Your task to perform on an android device: open app "Expedia: Hotels, Flights & Car" (install if not already installed), go to login, and select forgot password Image 0: 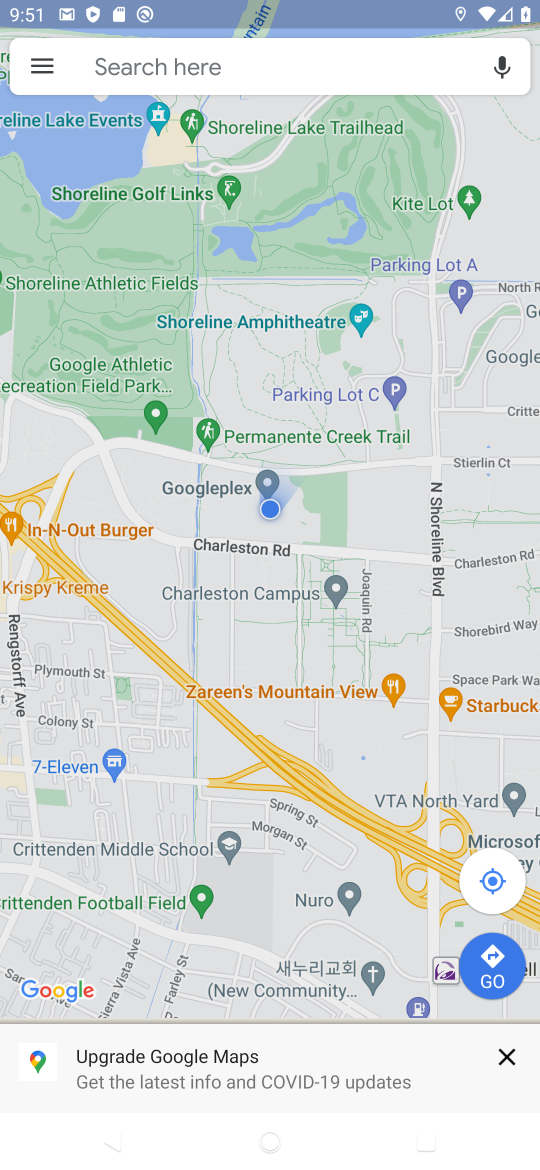
Step 0: press home button
Your task to perform on an android device: open app "Expedia: Hotels, Flights & Car" (install if not already installed), go to login, and select forgot password Image 1: 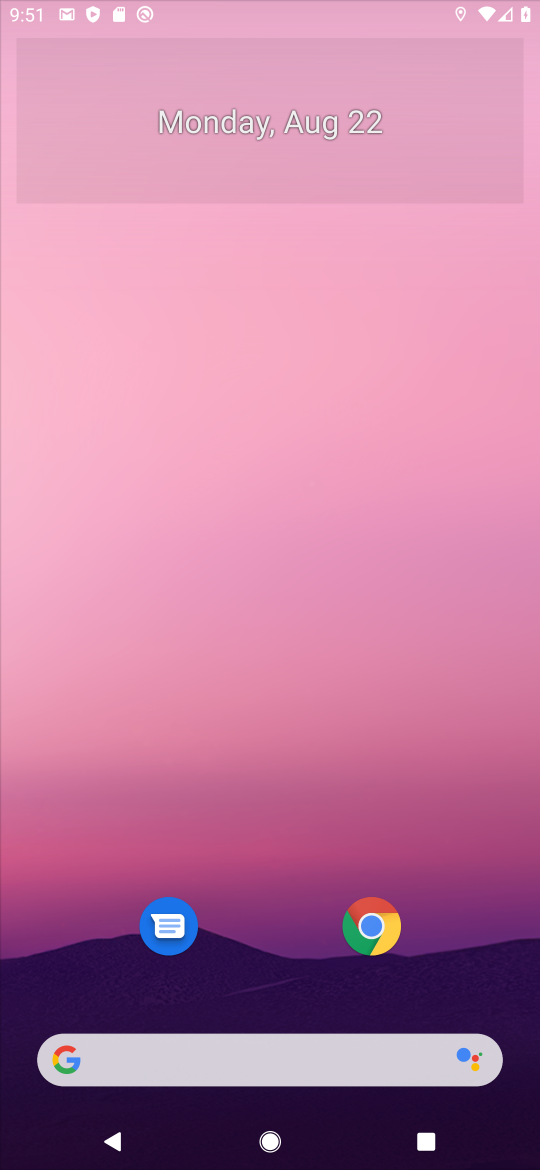
Step 1: drag from (303, 1016) to (381, 28)
Your task to perform on an android device: open app "Expedia: Hotels, Flights & Car" (install if not already installed), go to login, and select forgot password Image 2: 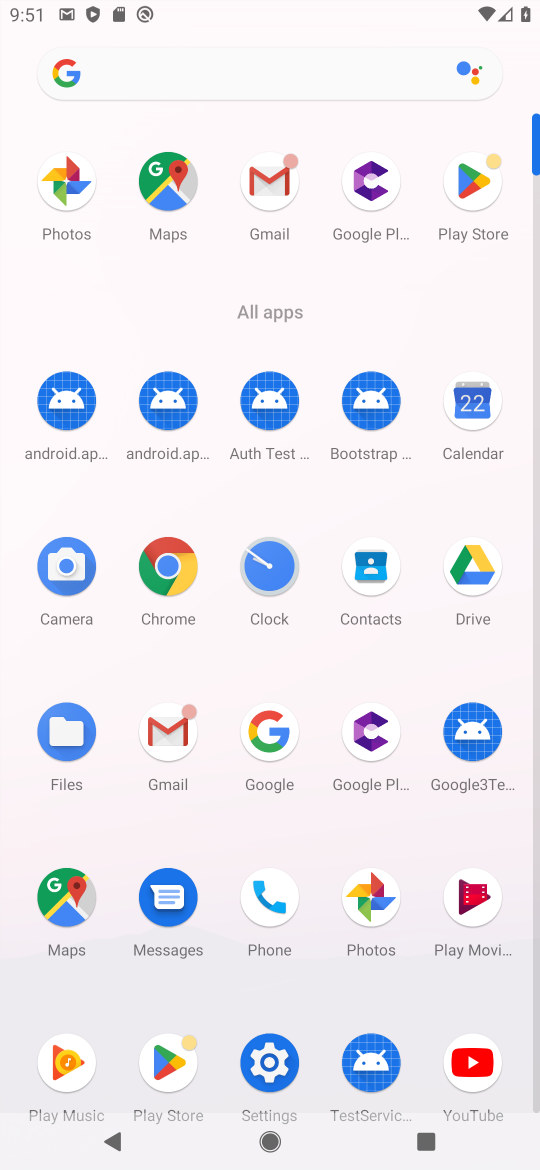
Step 2: click (465, 181)
Your task to perform on an android device: open app "Expedia: Hotels, Flights & Car" (install if not already installed), go to login, and select forgot password Image 3: 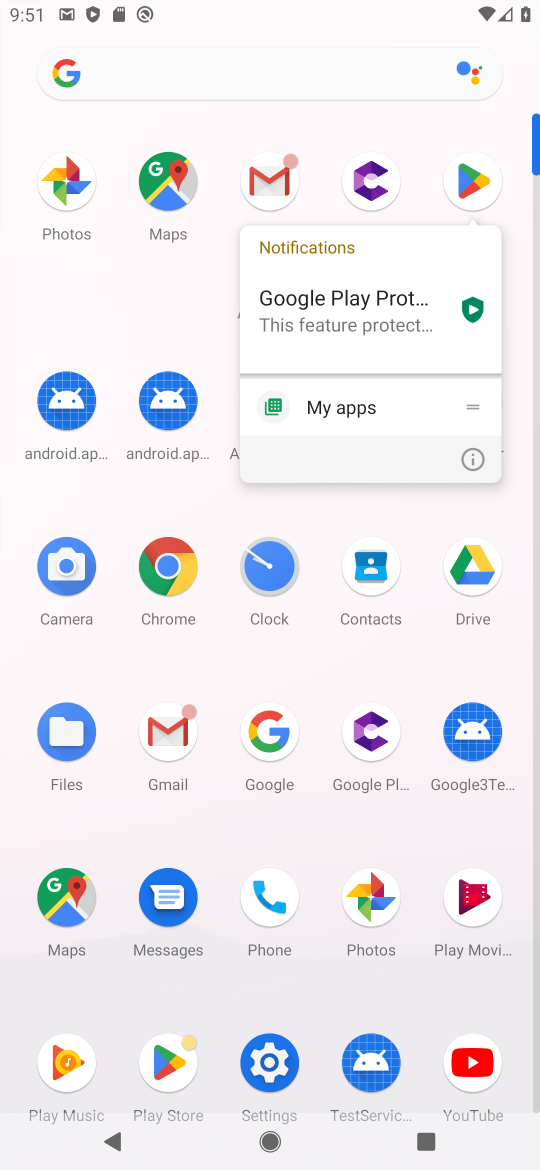
Step 3: click (465, 179)
Your task to perform on an android device: open app "Expedia: Hotels, Flights & Car" (install if not already installed), go to login, and select forgot password Image 4: 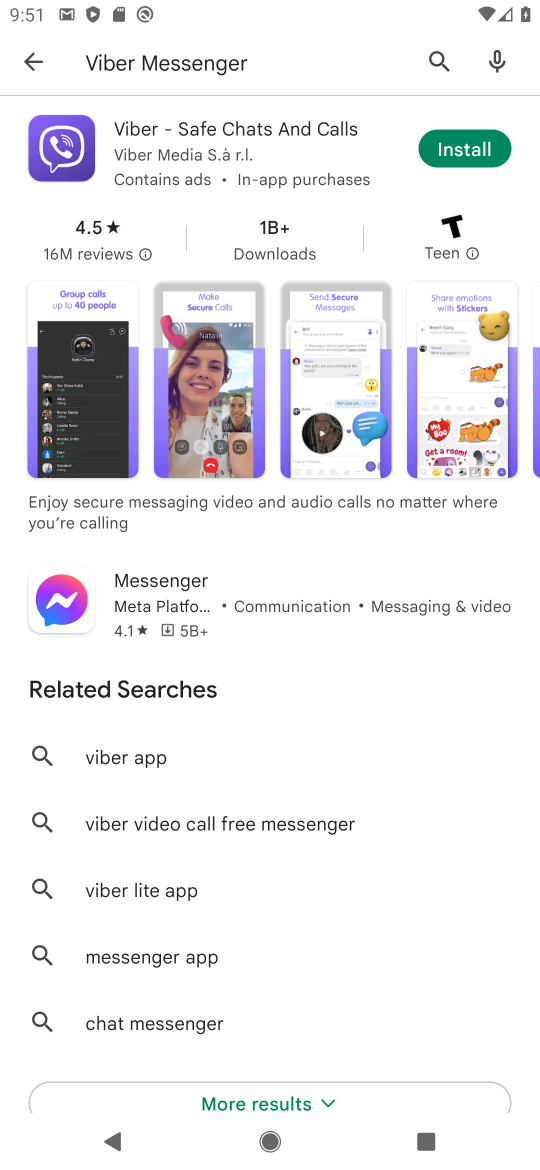
Step 4: press back button
Your task to perform on an android device: open app "Expedia: Hotels, Flights & Car" (install if not already installed), go to login, and select forgot password Image 5: 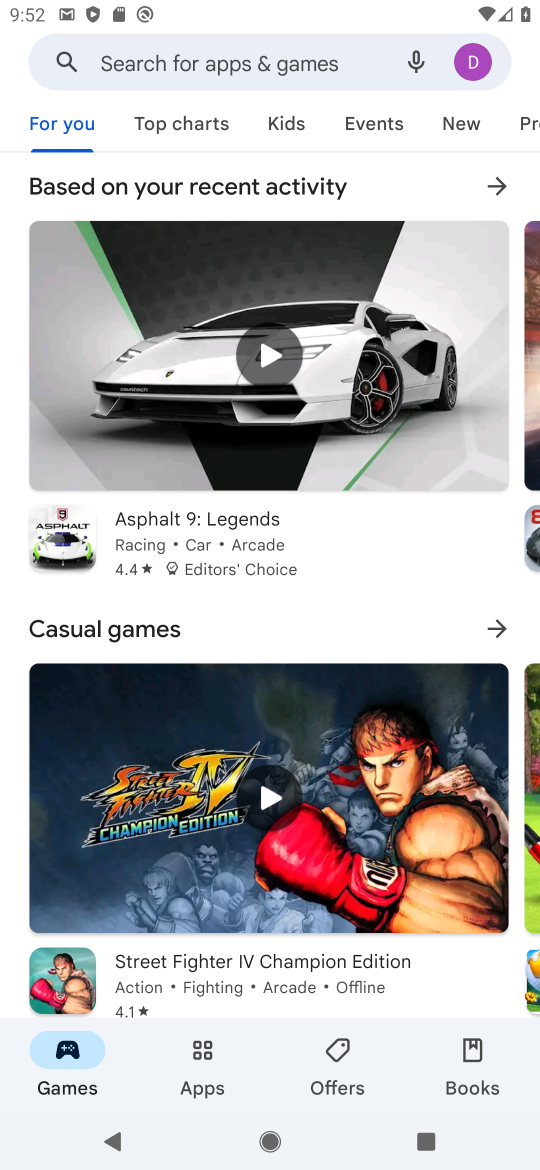
Step 5: click (192, 82)
Your task to perform on an android device: open app "Expedia: Hotels, Flights & Car" (install if not already installed), go to login, and select forgot password Image 6: 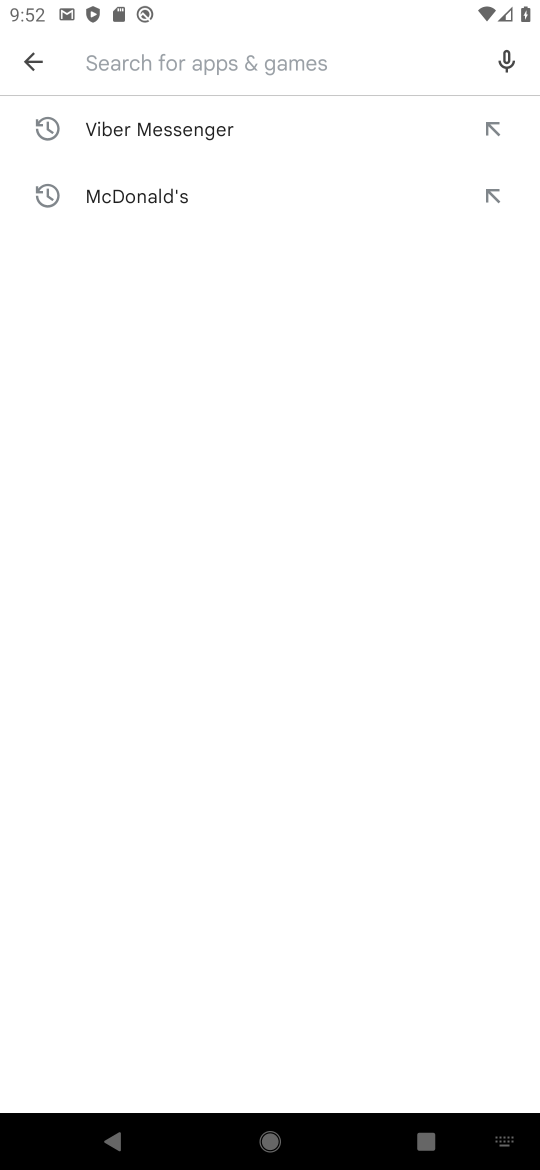
Step 6: type "Expedia: Hotels, Flights & Car"
Your task to perform on an android device: open app "Expedia: Hotels, Flights & Car" (install if not already installed), go to login, and select forgot password Image 7: 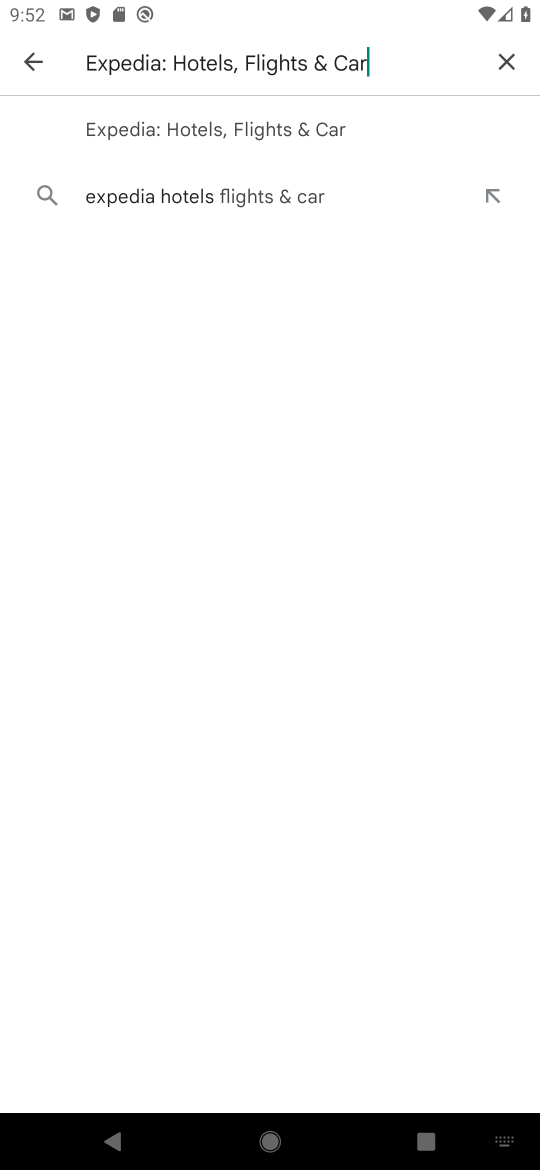
Step 7: press enter
Your task to perform on an android device: open app "Expedia: Hotels, Flights & Car" (install if not already installed), go to login, and select forgot password Image 8: 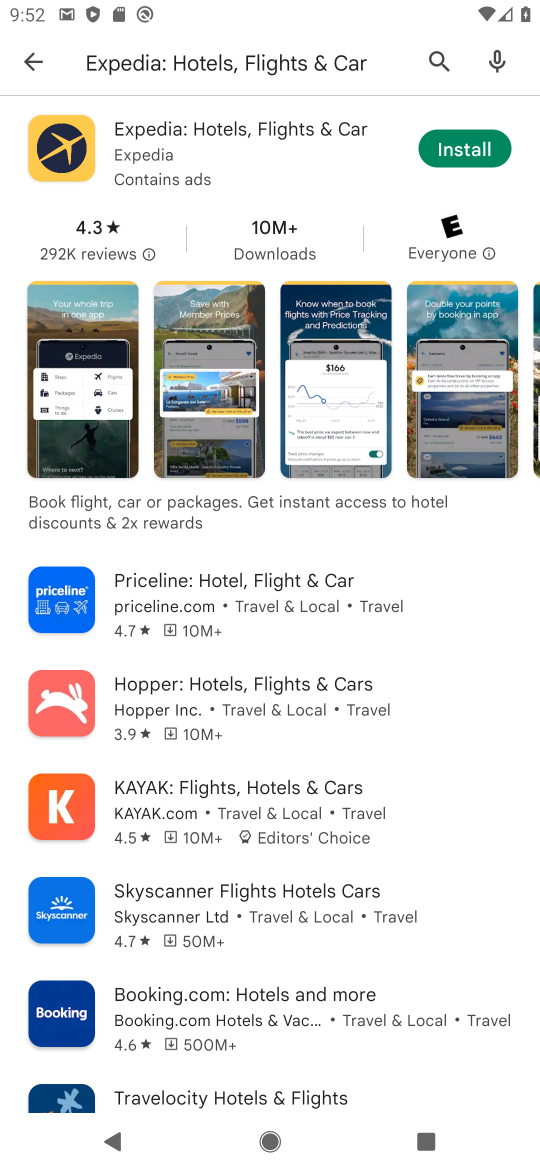
Step 8: click (480, 136)
Your task to perform on an android device: open app "Expedia: Hotels, Flights & Car" (install if not already installed), go to login, and select forgot password Image 9: 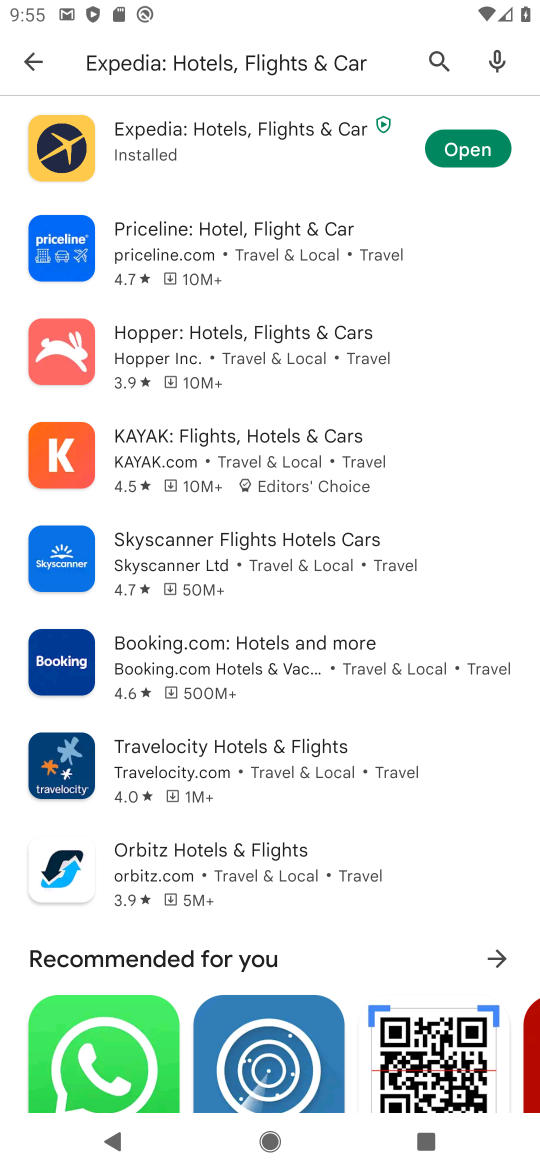
Step 9: click (451, 152)
Your task to perform on an android device: open app "Expedia: Hotels, Flights & Car" (install if not already installed), go to login, and select forgot password Image 10: 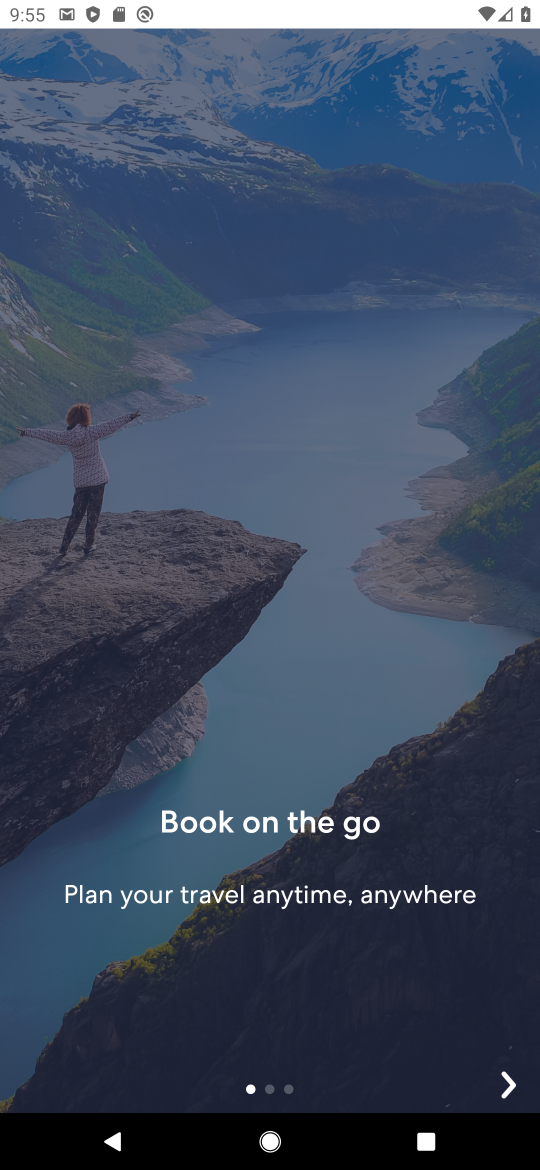
Step 10: click (511, 1085)
Your task to perform on an android device: open app "Expedia: Hotels, Flights & Car" (install if not already installed), go to login, and select forgot password Image 11: 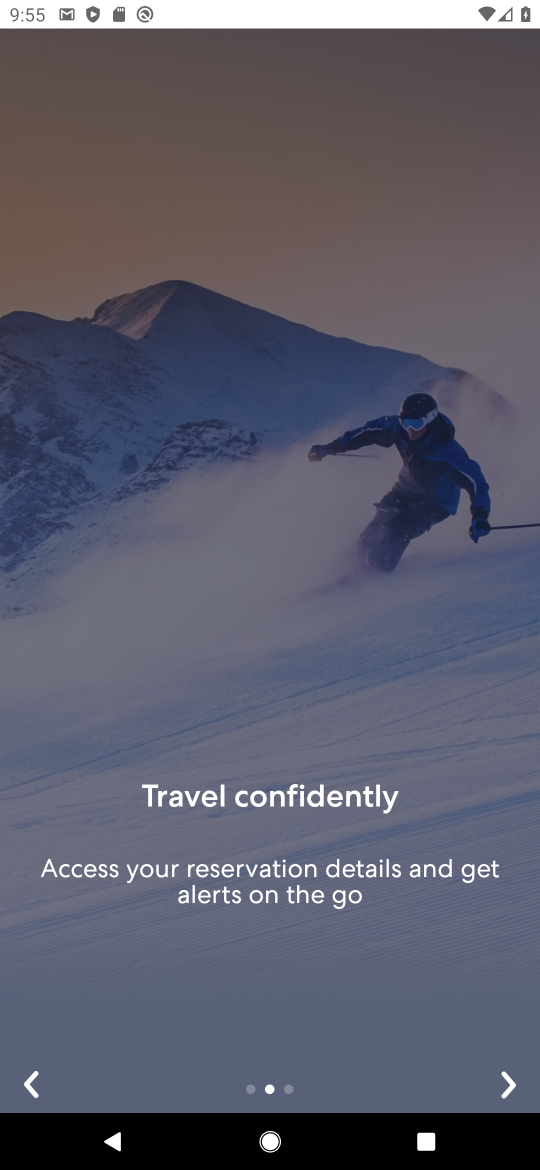
Step 11: click (510, 1086)
Your task to perform on an android device: open app "Expedia: Hotels, Flights & Car" (install if not already installed), go to login, and select forgot password Image 12: 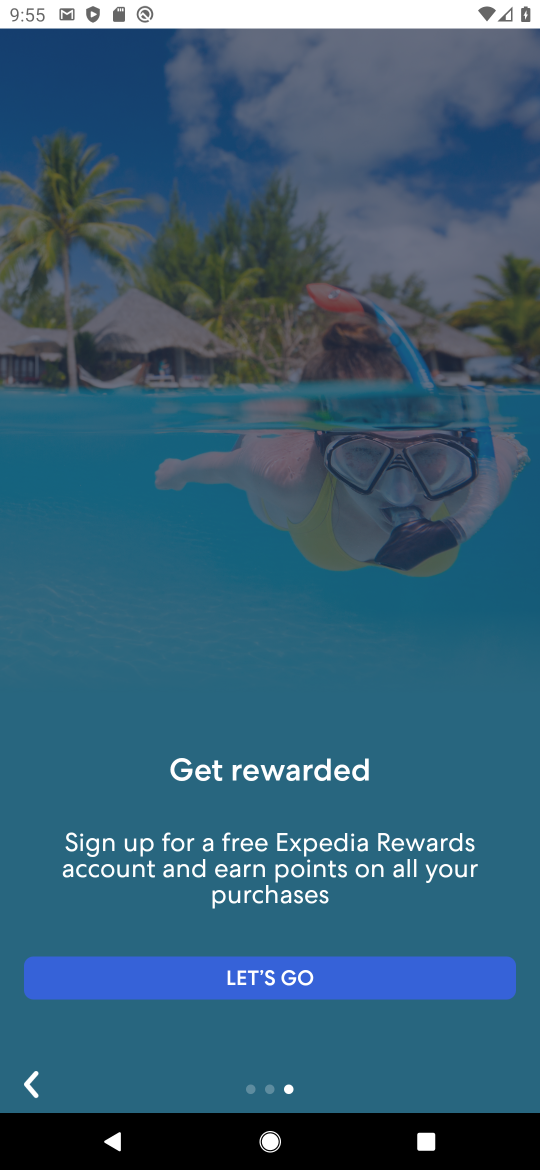
Step 12: click (296, 990)
Your task to perform on an android device: open app "Expedia: Hotels, Flights & Car" (install if not already installed), go to login, and select forgot password Image 13: 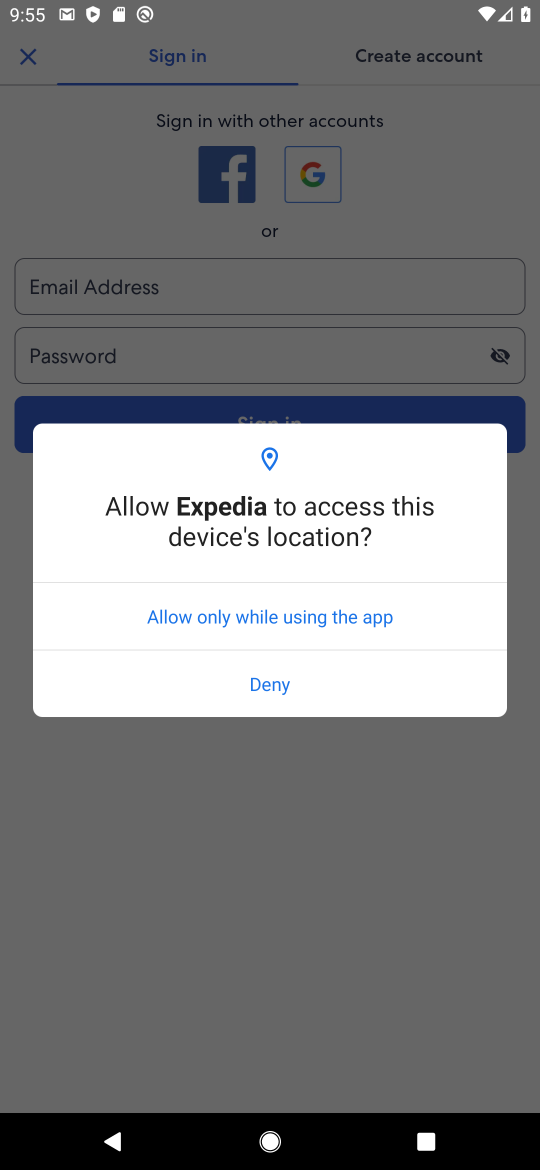
Step 13: click (286, 626)
Your task to perform on an android device: open app "Expedia: Hotels, Flights & Car" (install if not already installed), go to login, and select forgot password Image 14: 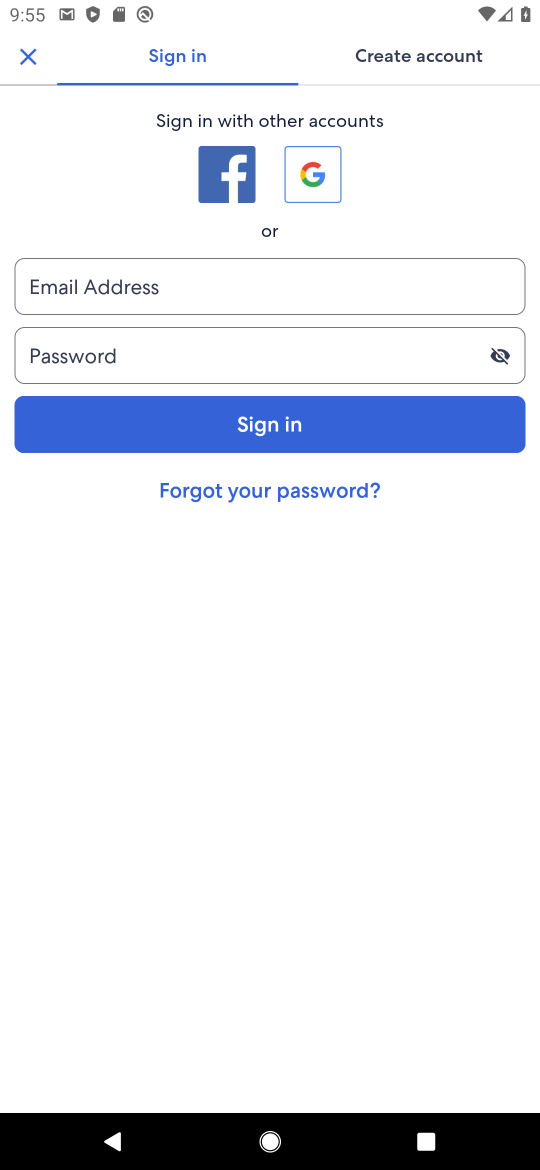
Step 14: click (236, 501)
Your task to perform on an android device: open app "Expedia: Hotels, Flights & Car" (install if not already installed), go to login, and select forgot password Image 15: 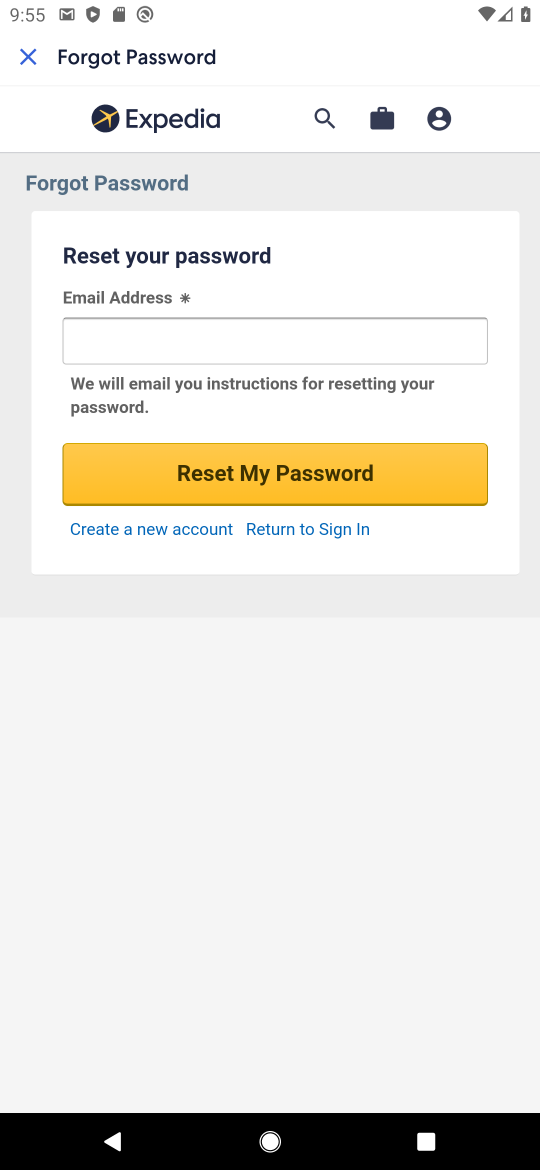
Step 15: task complete